Your task to perform on an android device: search for starred emails in the gmail app Image 0: 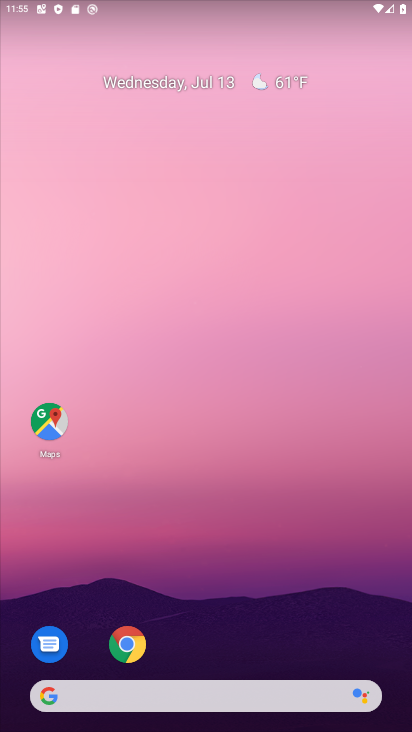
Step 0: drag from (220, 602) to (274, 146)
Your task to perform on an android device: search for starred emails in the gmail app Image 1: 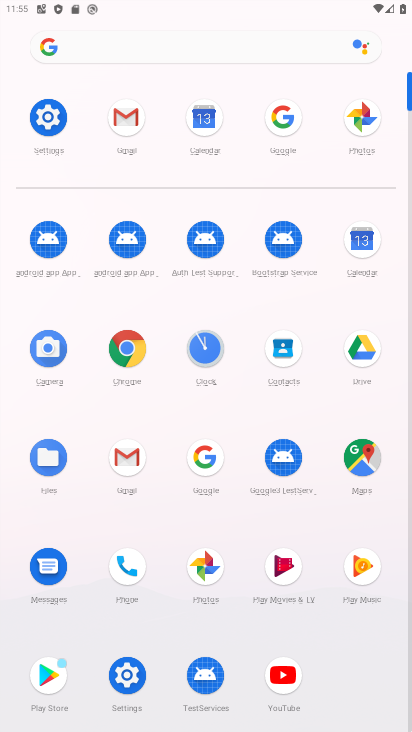
Step 1: click (125, 454)
Your task to perform on an android device: search for starred emails in the gmail app Image 2: 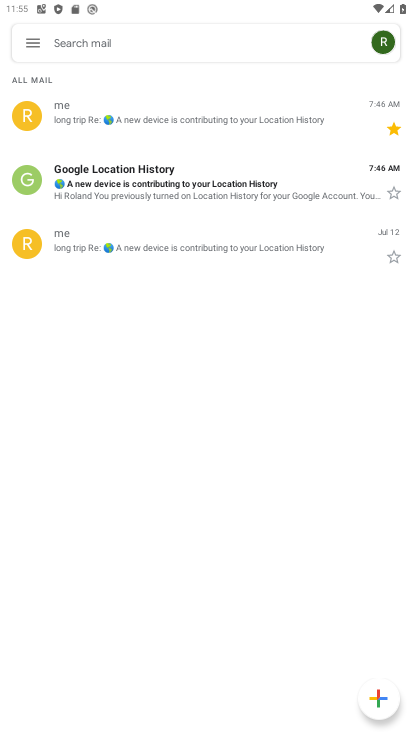
Step 2: click (28, 39)
Your task to perform on an android device: search for starred emails in the gmail app Image 3: 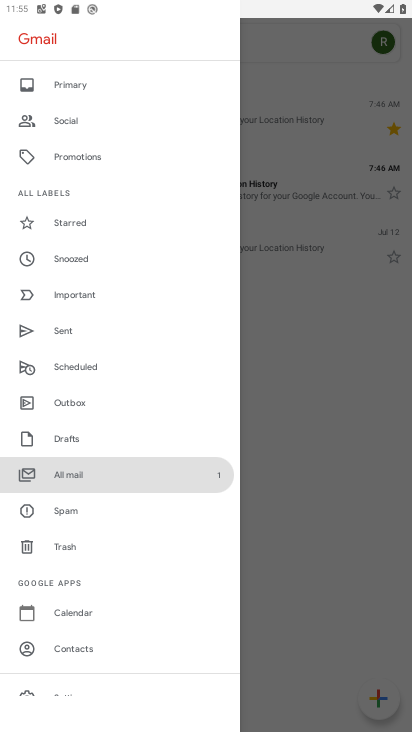
Step 3: click (65, 221)
Your task to perform on an android device: search for starred emails in the gmail app Image 4: 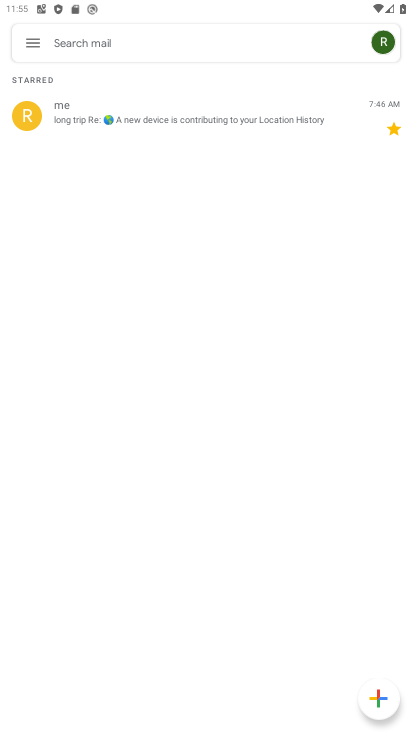
Step 4: task complete